Your task to perform on an android device: What's the weather going to be tomorrow? Image 0: 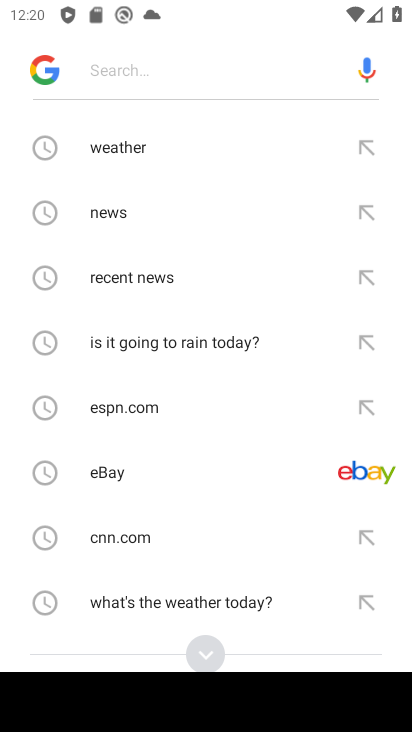
Step 0: press home button
Your task to perform on an android device: What's the weather going to be tomorrow? Image 1: 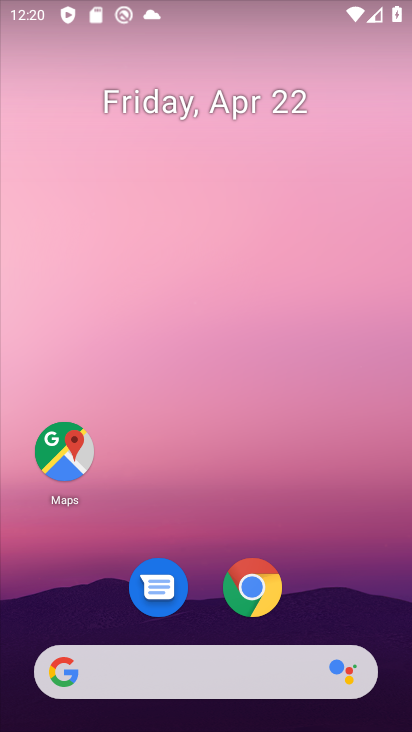
Step 1: drag from (329, 600) to (319, 77)
Your task to perform on an android device: What's the weather going to be tomorrow? Image 2: 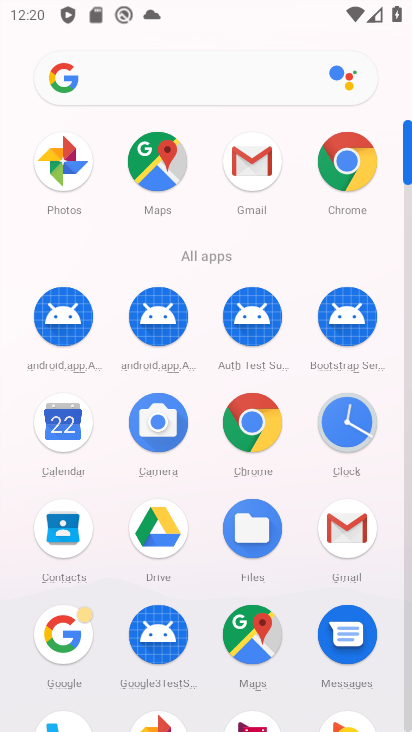
Step 2: click (244, 418)
Your task to perform on an android device: What's the weather going to be tomorrow? Image 3: 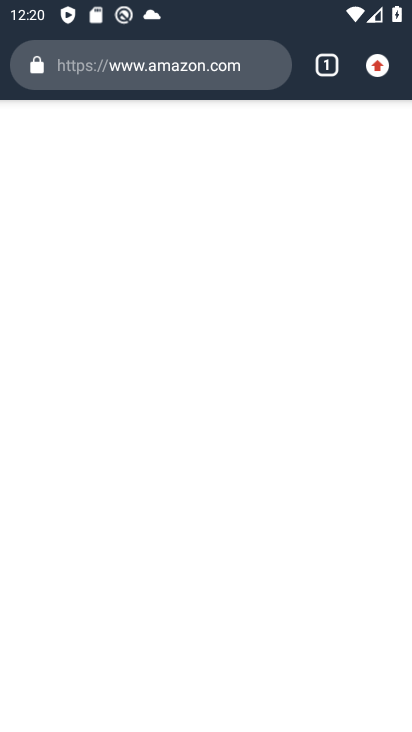
Step 3: click (234, 64)
Your task to perform on an android device: What's the weather going to be tomorrow? Image 4: 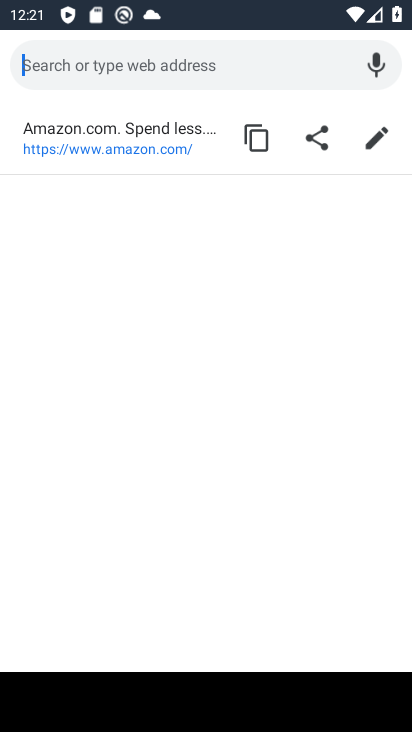
Step 4: type "What's the weather going to be tomorrow?"
Your task to perform on an android device: What's the weather going to be tomorrow? Image 5: 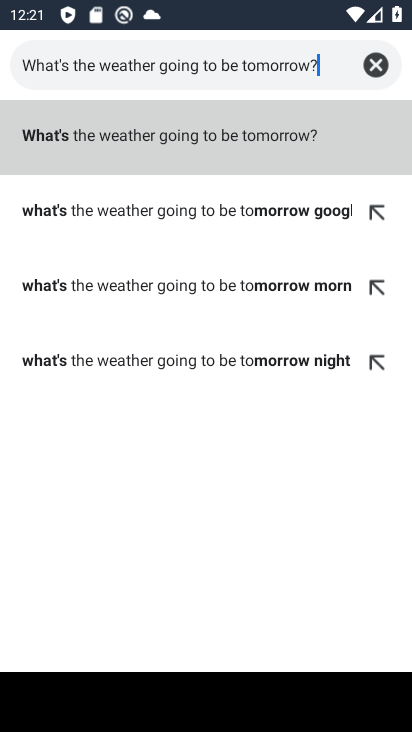
Step 5: click (113, 137)
Your task to perform on an android device: What's the weather going to be tomorrow? Image 6: 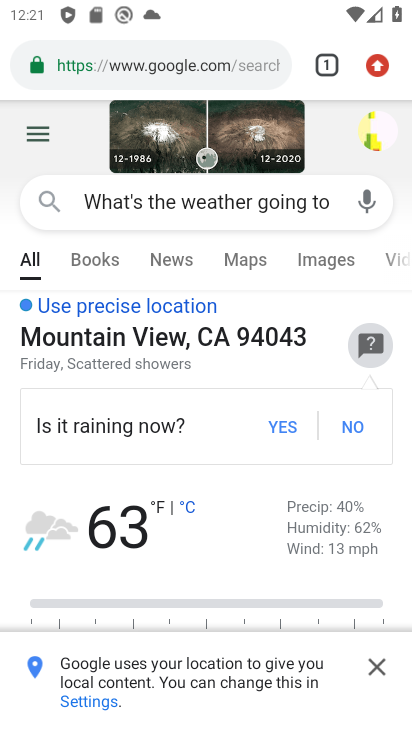
Step 6: task complete